Your task to perform on an android device: Do I have any events today? Image 0: 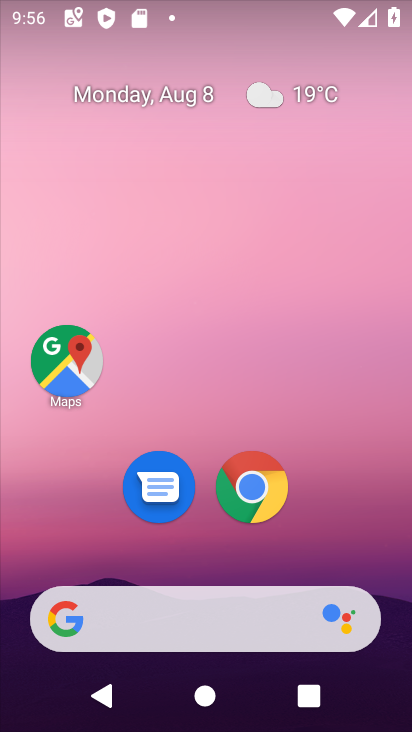
Step 0: drag from (204, 550) to (205, 111)
Your task to perform on an android device: Do I have any events today? Image 1: 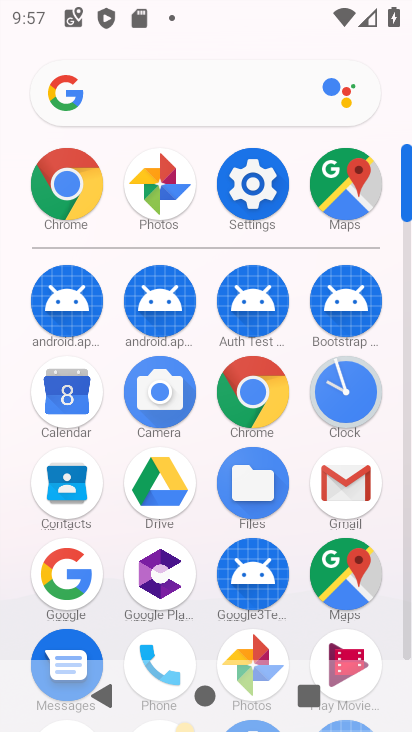
Step 1: click (68, 397)
Your task to perform on an android device: Do I have any events today? Image 2: 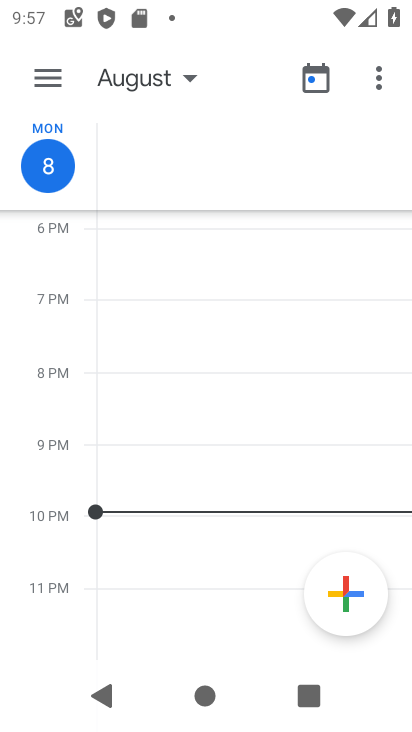
Step 2: task complete